Your task to perform on an android device: toggle notifications settings in the gmail app Image 0: 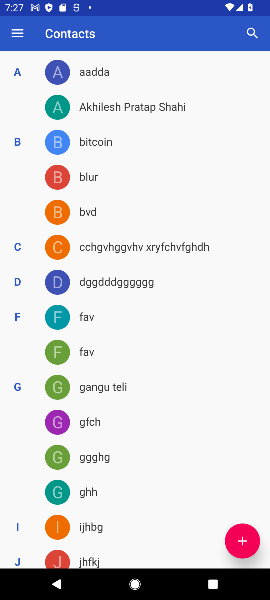
Step 0: press home button
Your task to perform on an android device: toggle notifications settings in the gmail app Image 1: 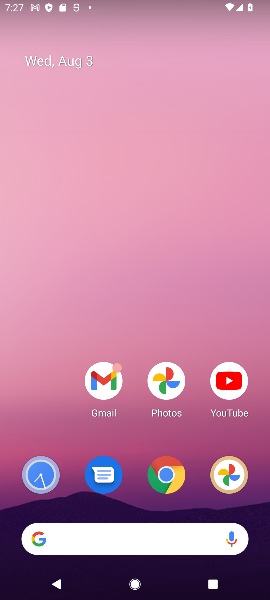
Step 1: click (102, 384)
Your task to perform on an android device: toggle notifications settings in the gmail app Image 2: 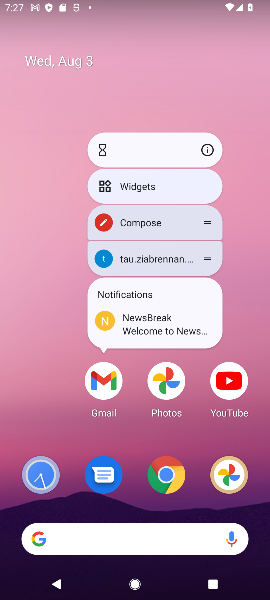
Step 2: click (209, 147)
Your task to perform on an android device: toggle notifications settings in the gmail app Image 3: 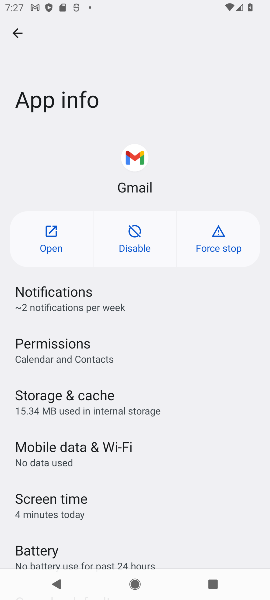
Step 3: click (110, 301)
Your task to perform on an android device: toggle notifications settings in the gmail app Image 4: 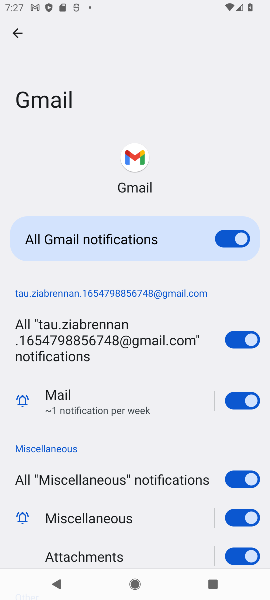
Step 4: click (231, 243)
Your task to perform on an android device: toggle notifications settings in the gmail app Image 5: 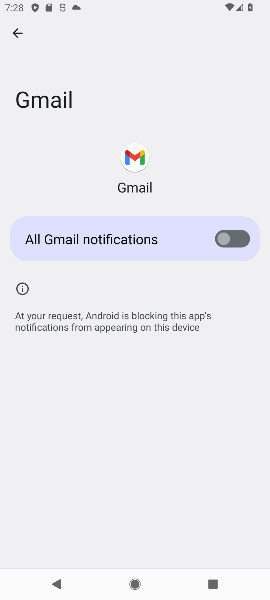
Step 5: task complete